Your task to perform on an android device: Open Android settings Image 0: 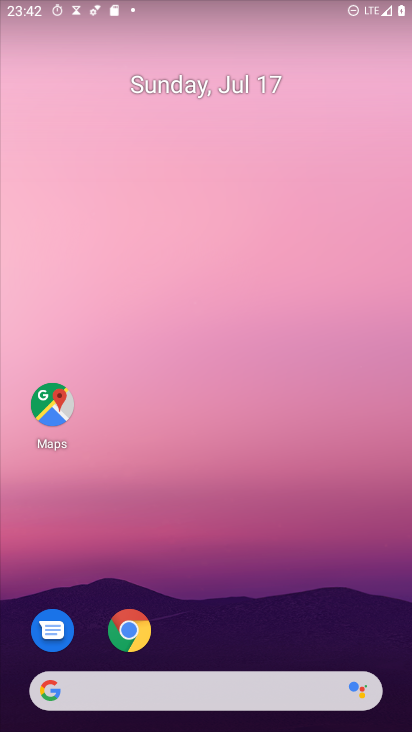
Step 0: drag from (186, 680) to (242, 135)
Your task to perform on an android device: Open Android settings Image 1: 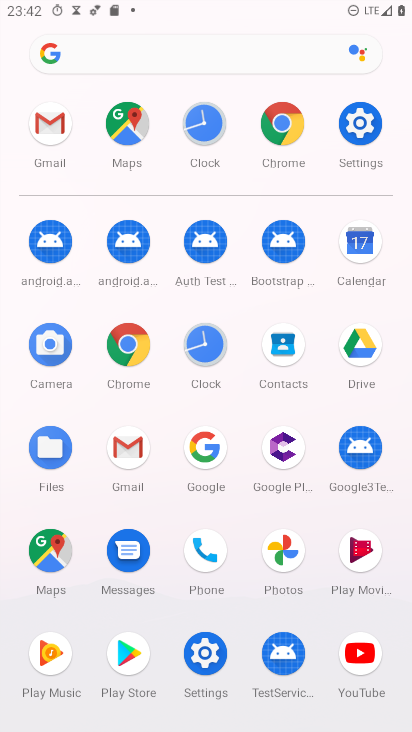
Step 1: click (377, 125)
Your task to perform on an android device: Open Android settings Image 2: 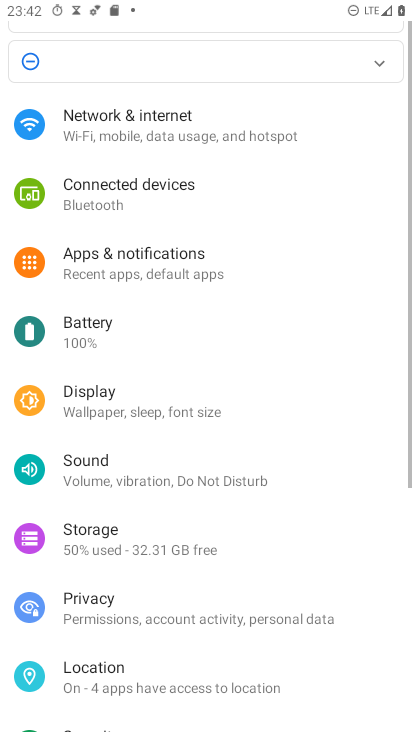
Step 2: drag from (151, 680) to (132, 90)
Your task to perform on an android device: Open Android settings Image 3: 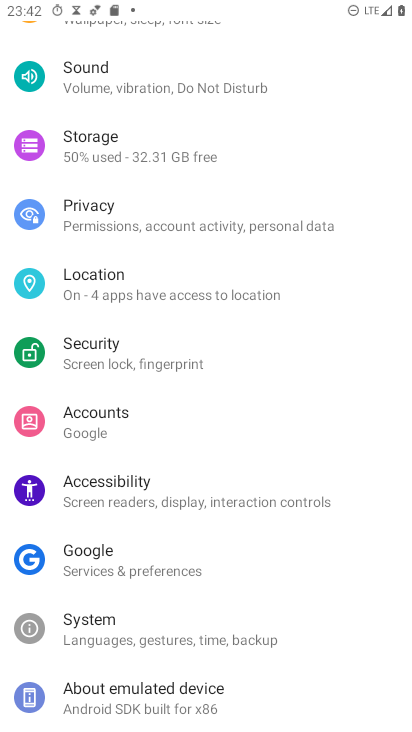
Step 3: click (186, 706)
Your task to perform on an android device: Open Android settings Image 4: 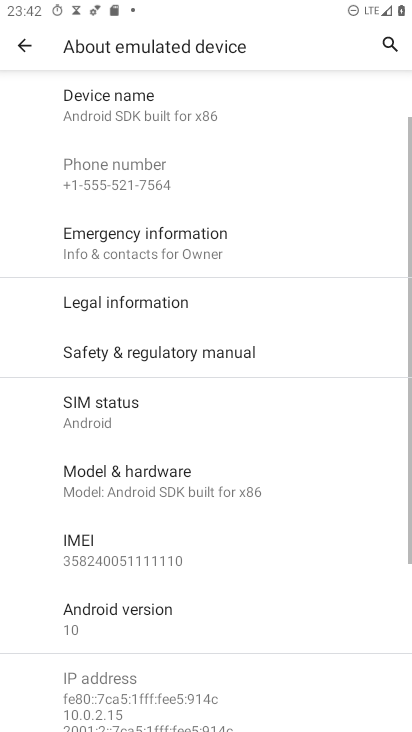
Step 4: task complete